Your task to perform on an android device: open a bookmark in the chrome app Image 0: 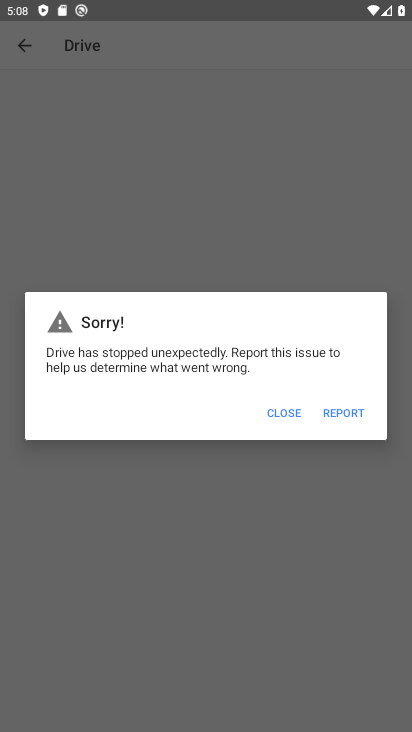
Step 0: press home button
Your task to perform on an android device: open a bookmark in the chrome app Image 1: 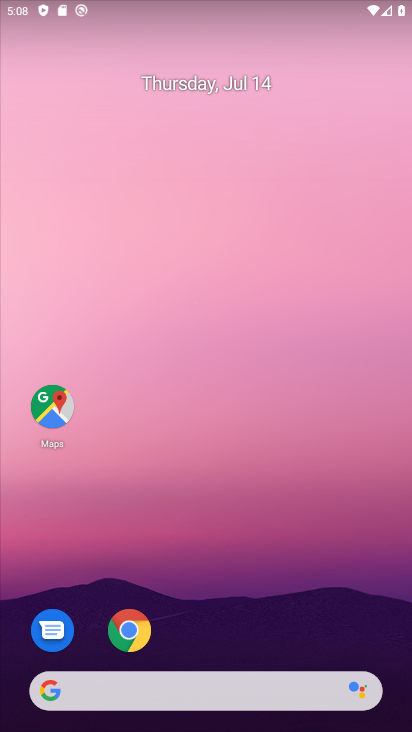
Step 1: drag from (225, 640) to (234, 85)
Your task to perform on an android device: open a bookmark in the chrome app Image 2: 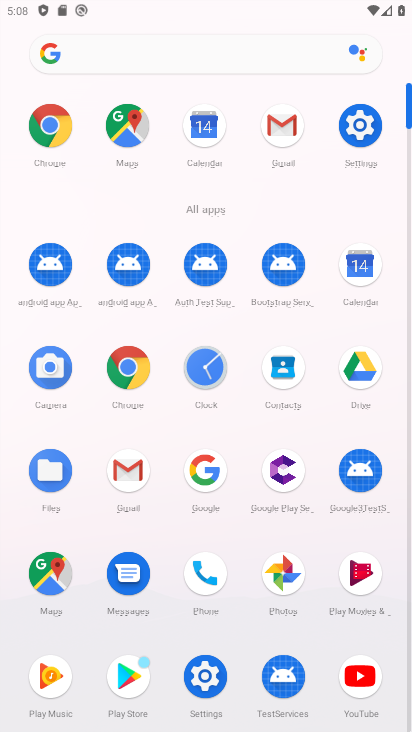
Step 2: click (56, 134)
Your task to perform on an android device: open a bookmark in the chrome app Image 3: 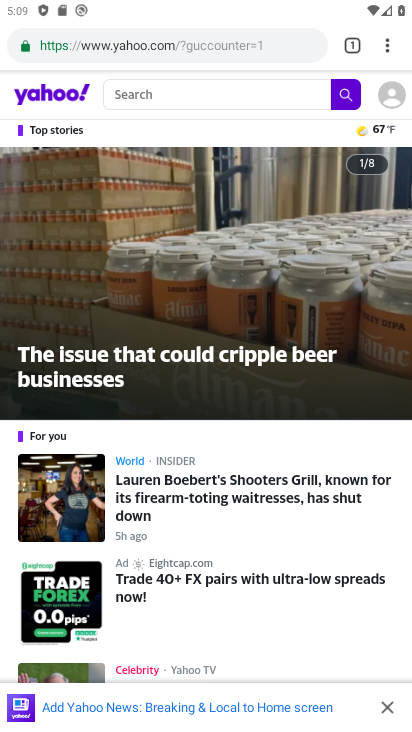
Step 3: drag from (383, 40) to (258, 171)
Your task to perform on an android device: open a bookmark in the chrome app Image 4: 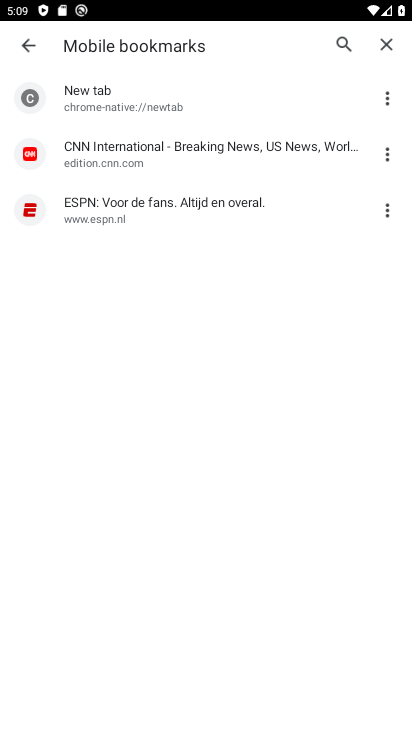
Step 4: click (98, 141)
Your task to perform on an android device: open a bookmark in the chrome app Image 5: 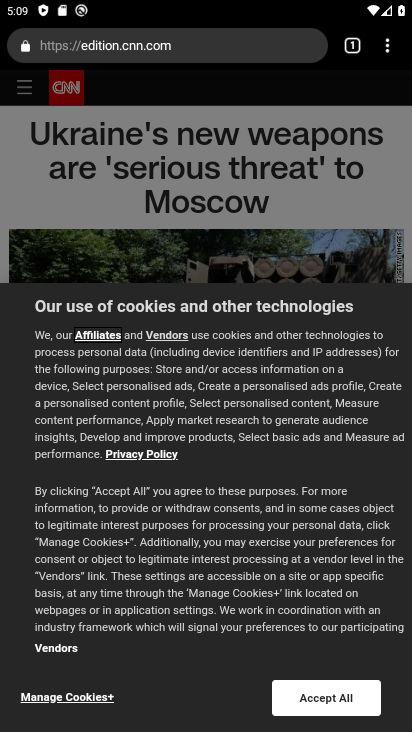
Step 5: task complete